Your task to perform on an android device: turn on translation in the chrome app Image 0: 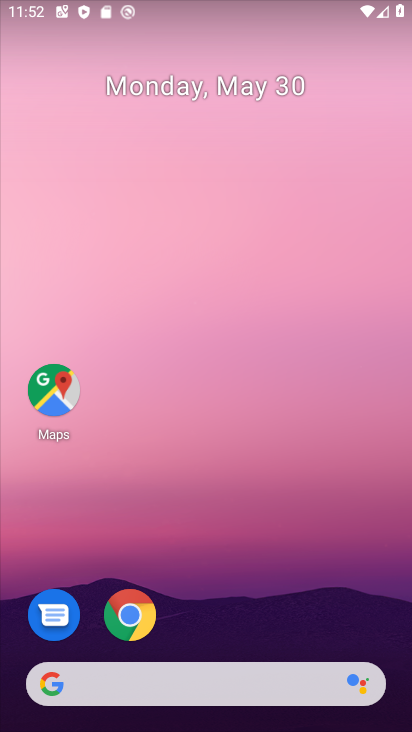
Step 0: drag from (212, 578) to (327, 170)
Your task to perform on an android device: turn on translation in the chrome app Image 1: 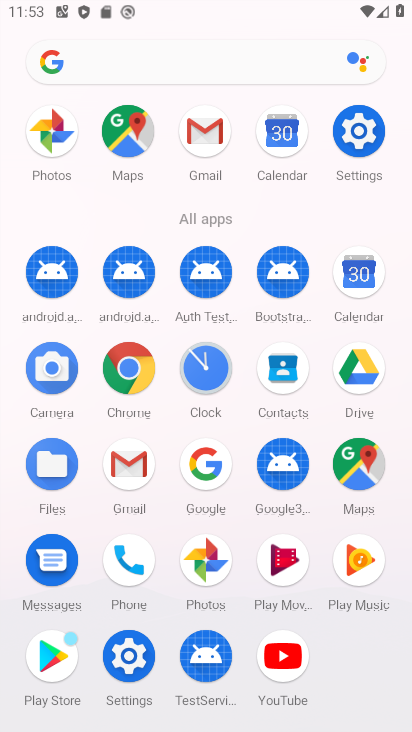
Step 1: click (142, 377)
Your task to perform on an android device: turn on translation in the chrome app Image 2: 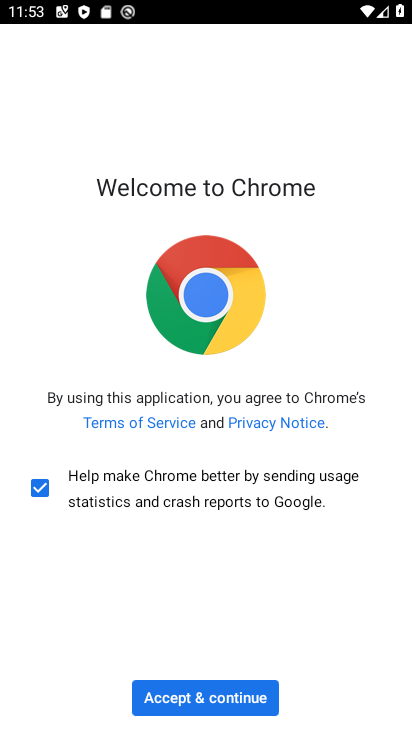
Step 2: click (212, 702)
Your task to perform on an android device: turn on translation in the chrome app Image 3: 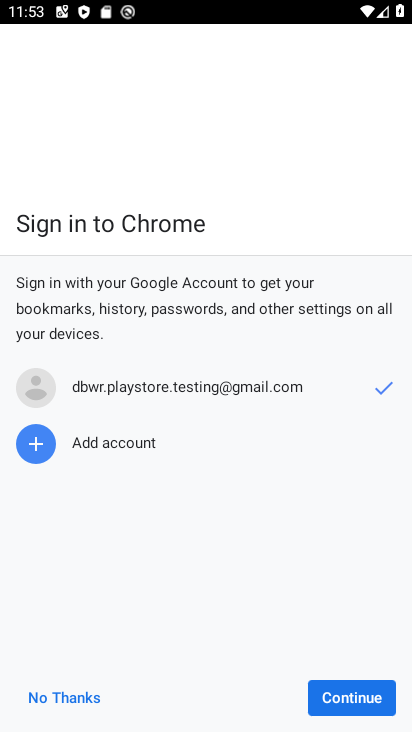
Step 3: click (328, 698)
Your task to perform on an android device: turn on translation in the chrome app Image 4: 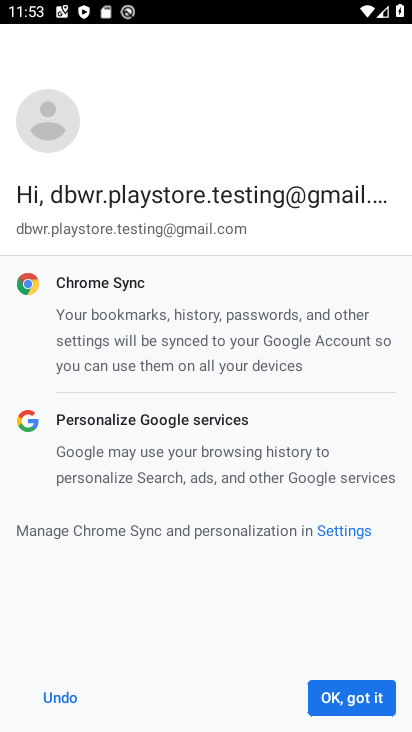
Step 4: click (370, 684)
Your task to perform on an android device: turn on translation in the chrome app Image 5: 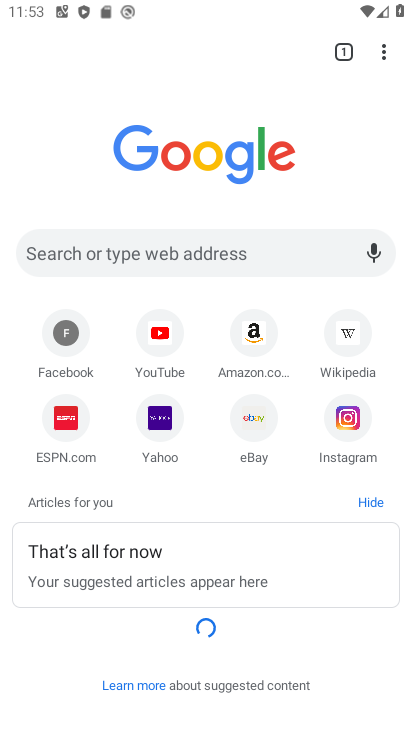
Step 5: click (385, 44)
Your task to perform on an android device: turn on translation in the chrome app Image 6: 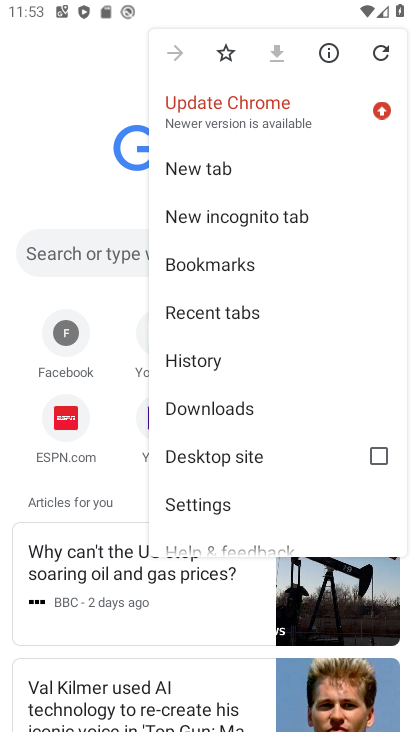
Step 6: click (193, 512)
Your task to perform on an android device: turn on translation in the chrome app Image 7: 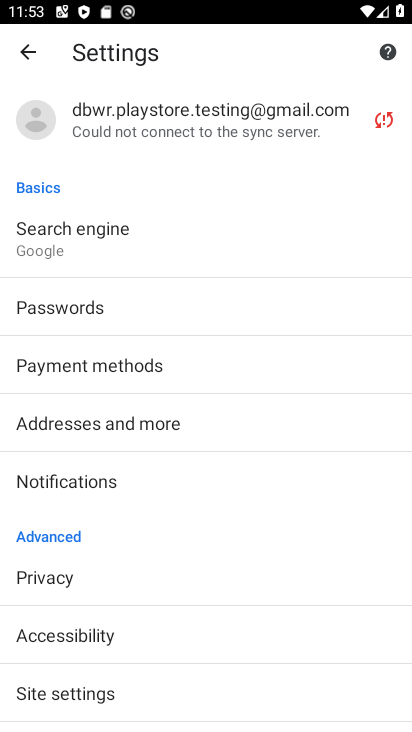
Step 7: drag from (139, 561) to (188, 230)
Your task to perform on an android device: turn on translation in the chrome app Image 8: 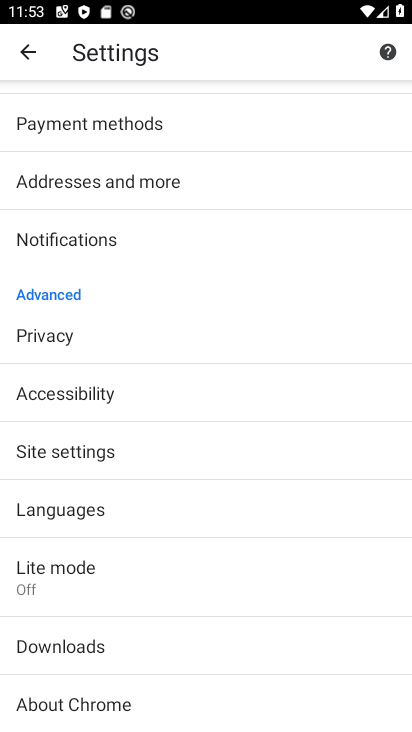
Step 8: click (75, 513)
Your task to perform on an android device: turn on translation in the chrome app Image 9: 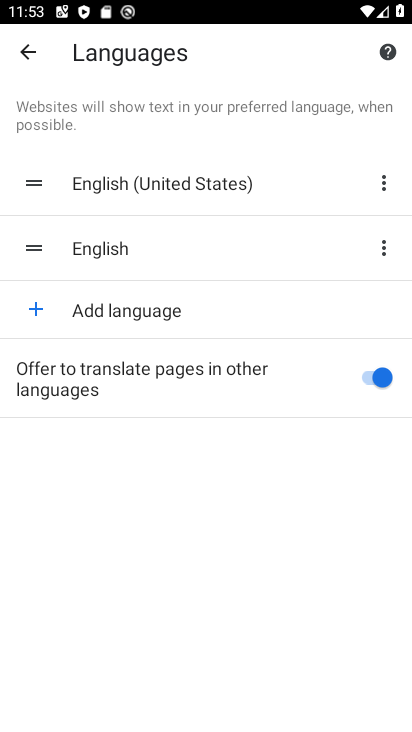
Step 9: task complete